Your task to perform on an android device: Open internet settings Image 0: 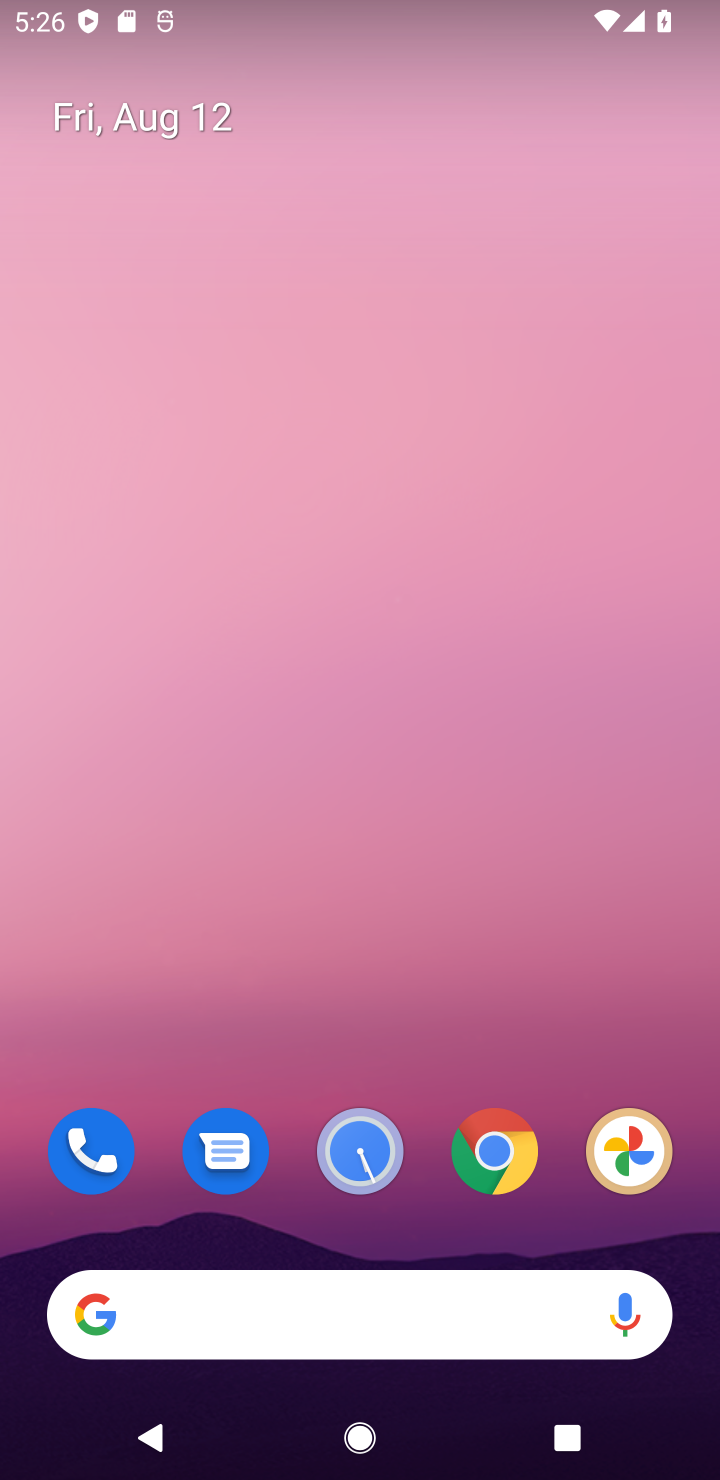
Step 0: click (699, 765)
Your task to perform on an android device: Open internet settings Image 1: 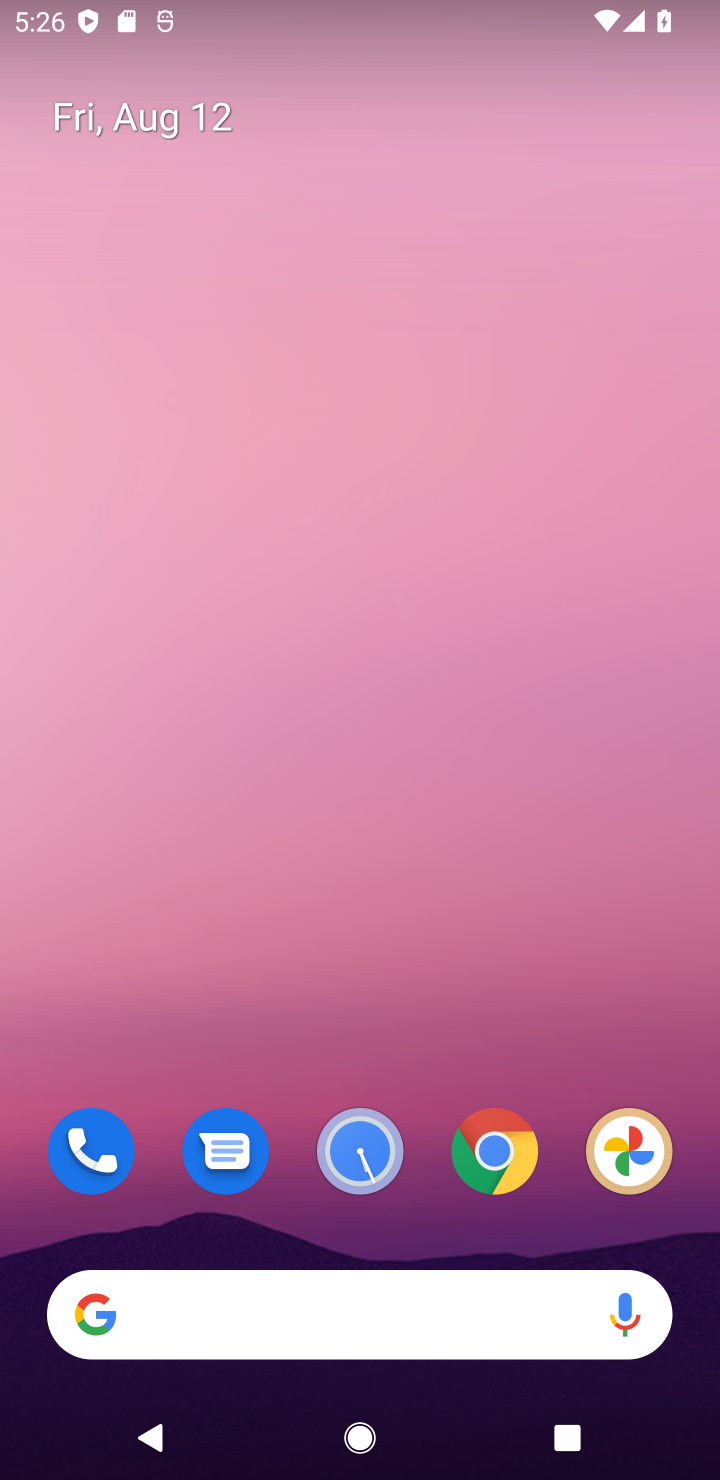
Step 1: drag from (426, 1080) to (444, 264)
Your task to perform on an android device: Open internet settings Image 2: 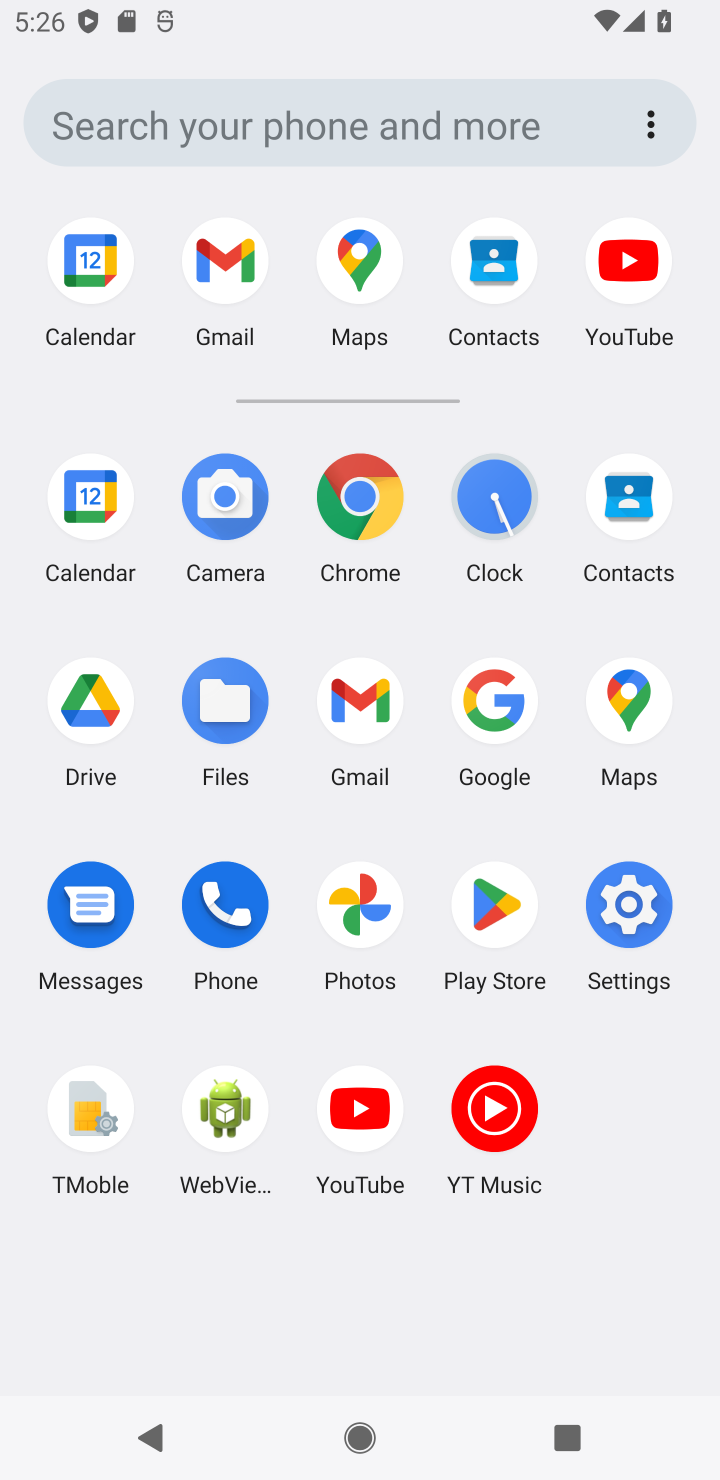
Step 2: click (640, 911)
Your task to perform on an android device: Open internet settings Image 3: 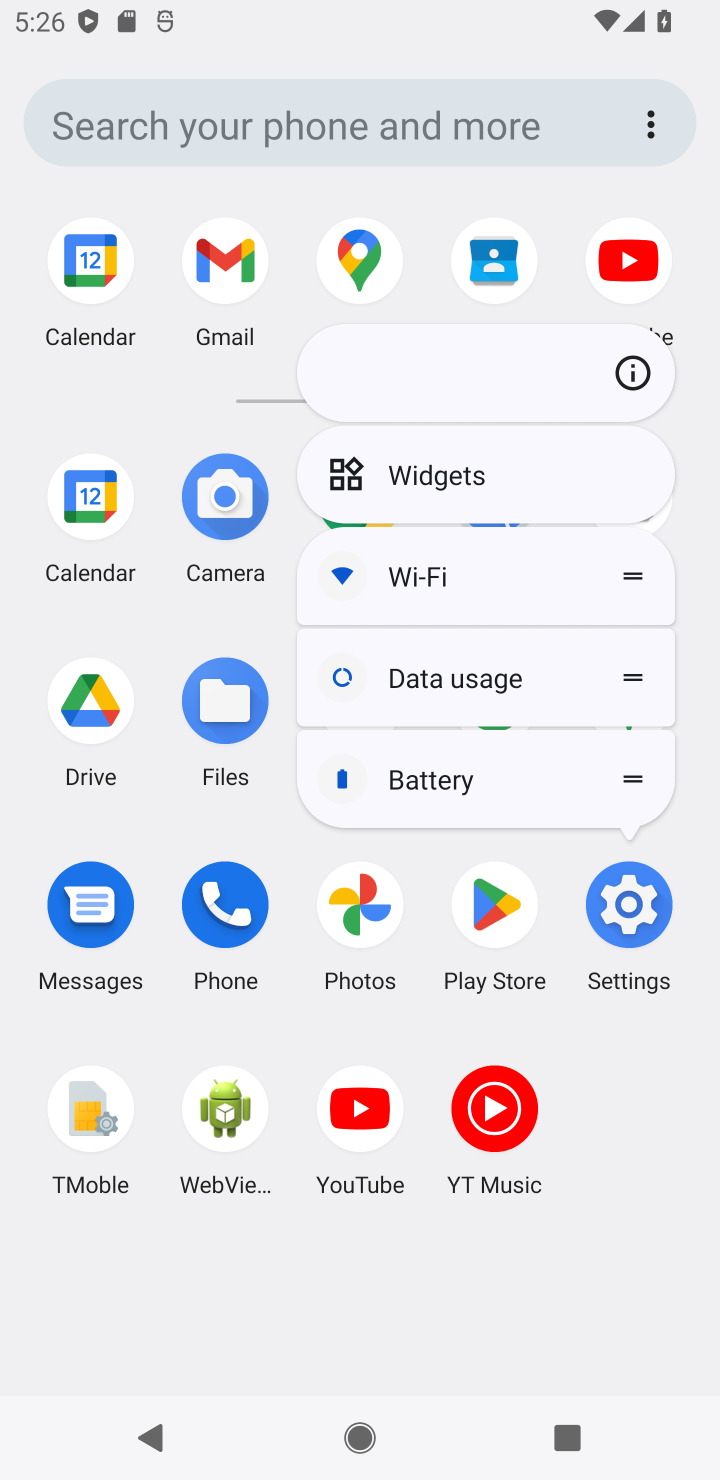
Step 3: click (633, 911)
Your task to perform on an android device: Open internet settings Image 4: 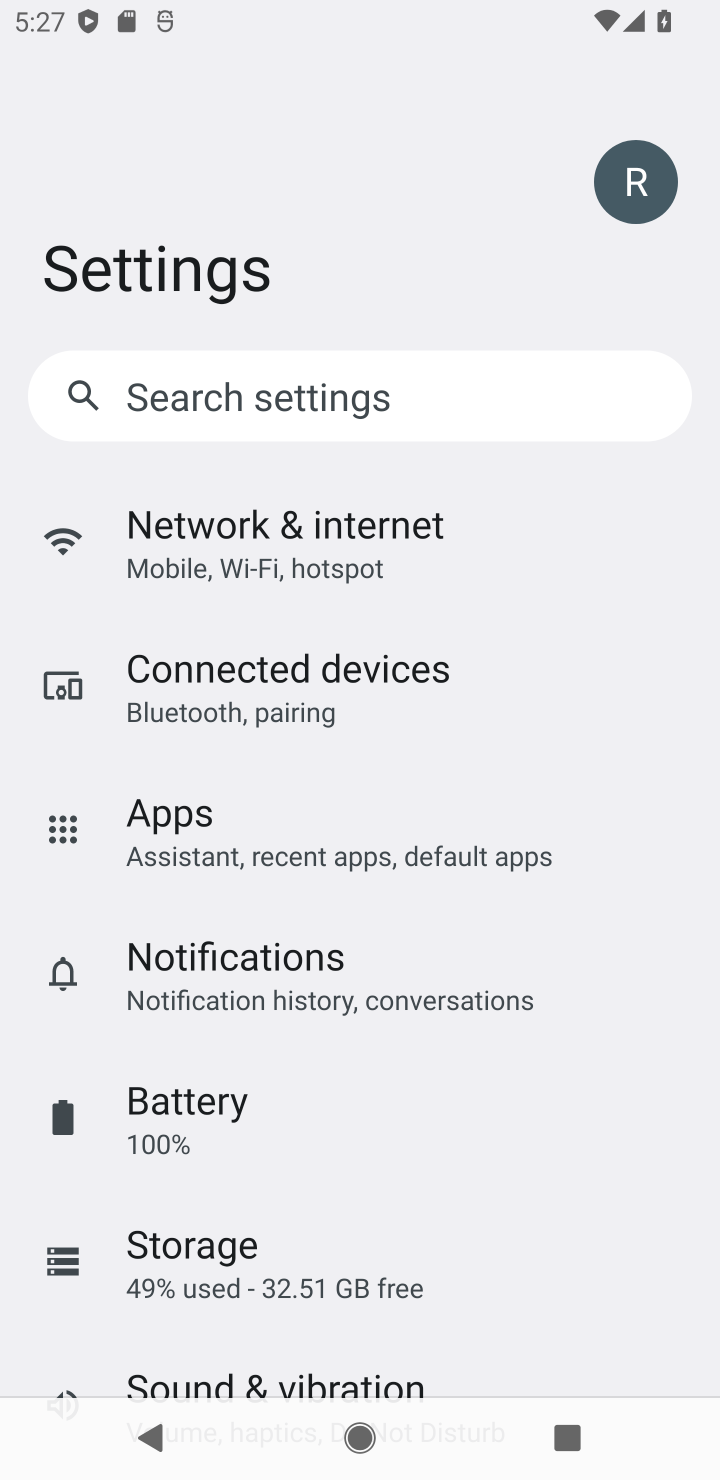
Step 4: click (419, 553)
Your task to perform on an android device: Open internet settings Image 5: 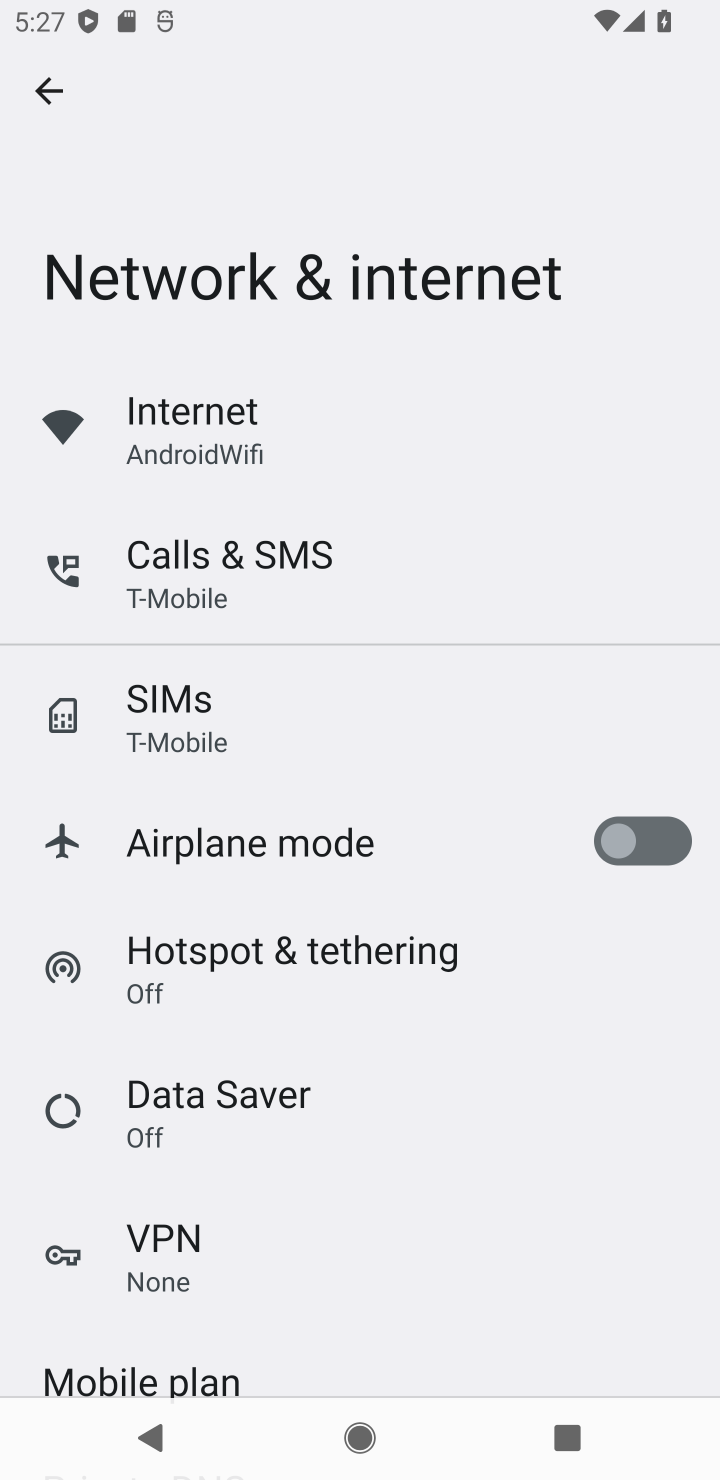
Step 5: click (261, 455)
Your task to perform on an android device: Open internet settings Image 6: 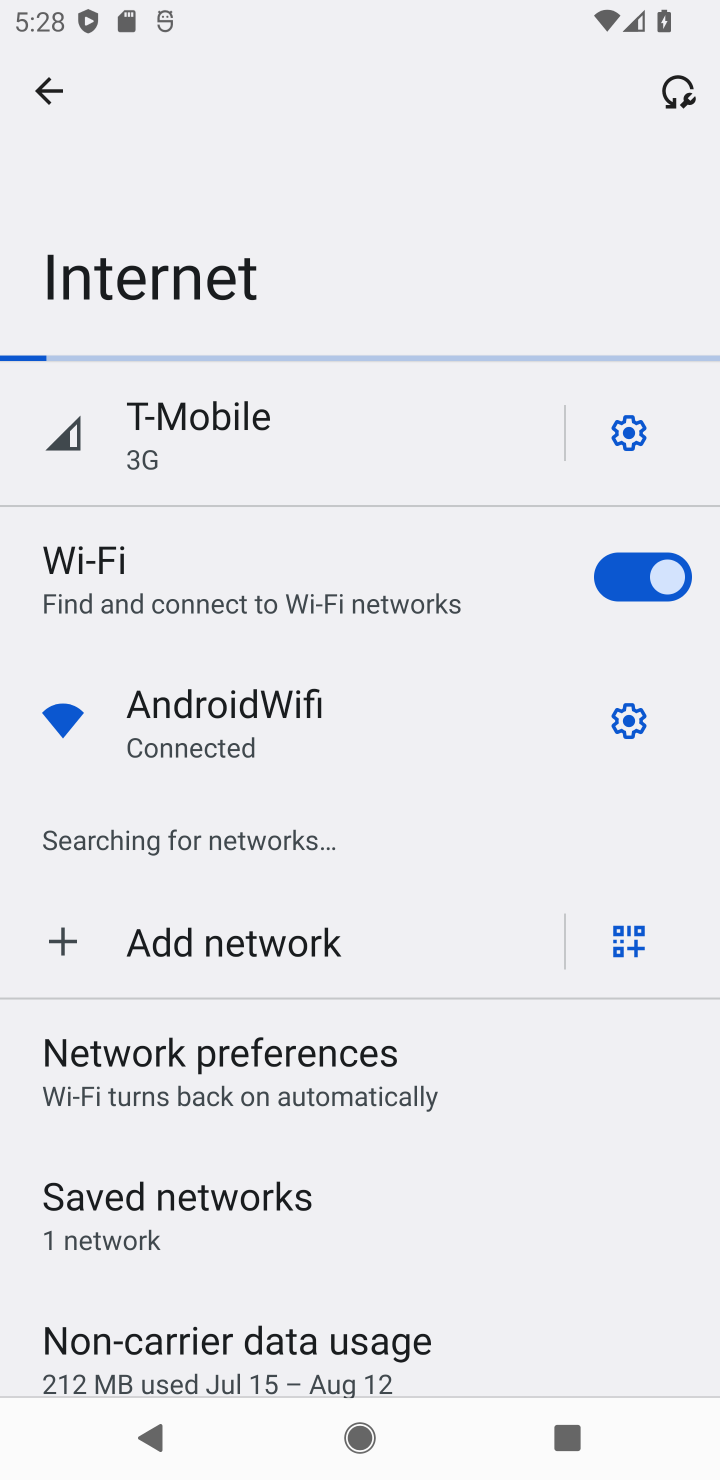
Step 6: task complete